Your task to perform on an android device: Go to Yahoo.com Image 0: 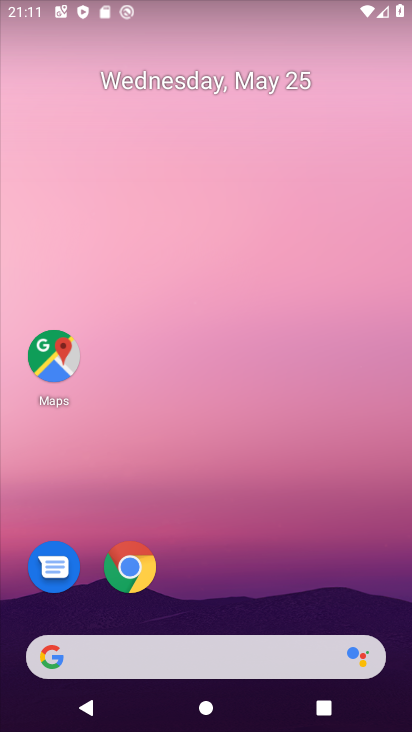
Step 0: click (218, 657)
Your task to perform on an android device: Go to Yahoo.com Image 1: 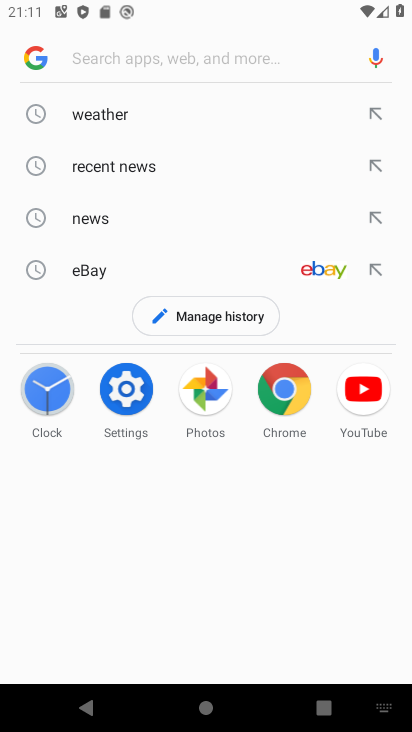
Step 1: type "yahoo.com"
Your task to perform on an android device: Go to Yahoo.com Image 2: 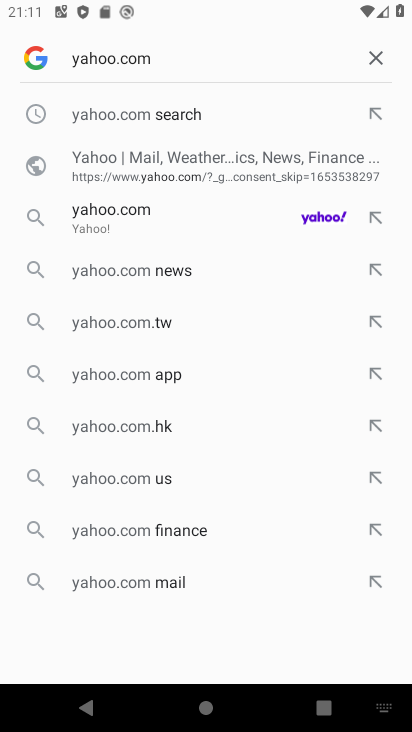
Step 2: click (122, 230)
Your task to perform on an android device: Go to Yahoo.com Image 3: 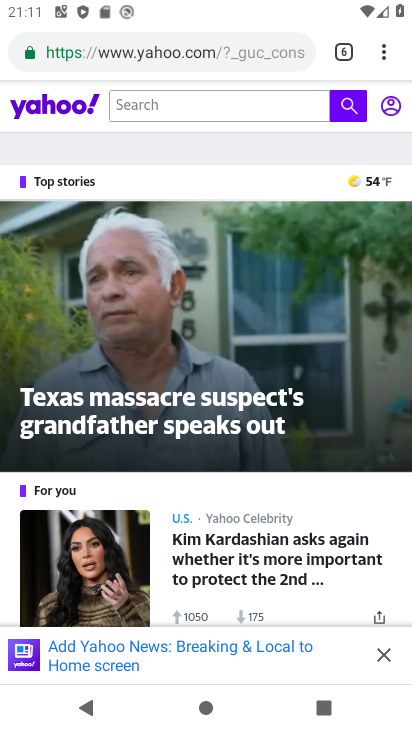
Step 3: task complete